Your task to perform on an android device: remove spam from my inbox in the gmail app Image 0: 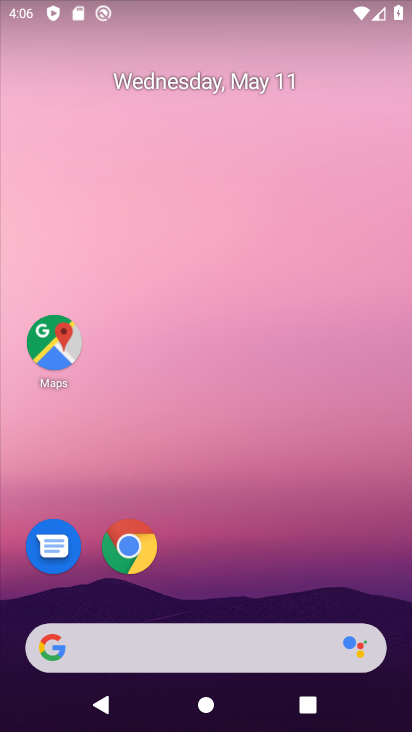
Step 0: press home button
Your task to perform on an android device: remove spam from my inbox in the gmail app Image 1: 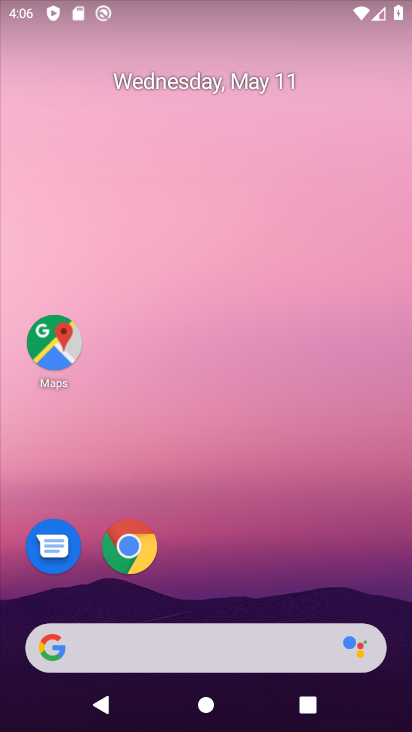
Step 1: drag from (208, 628) to (206, 207)
Your task to perform on an android device: remove spam from my inbox in the gmail app Image 2: 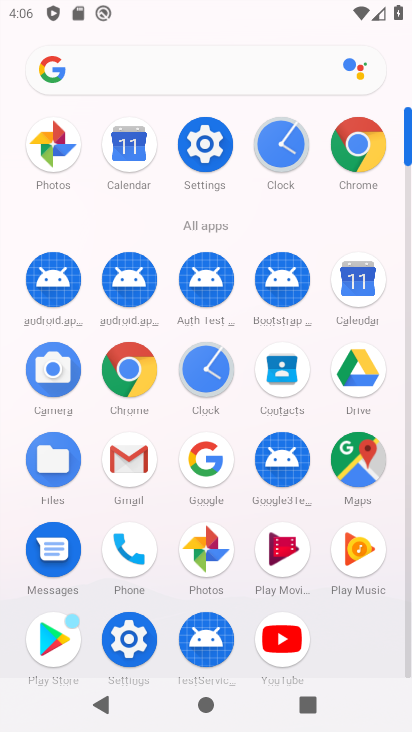
Step 2: click (141, 458)
Your task to perform on an android device: remove spam from my inbox in the gmail app Image 3: 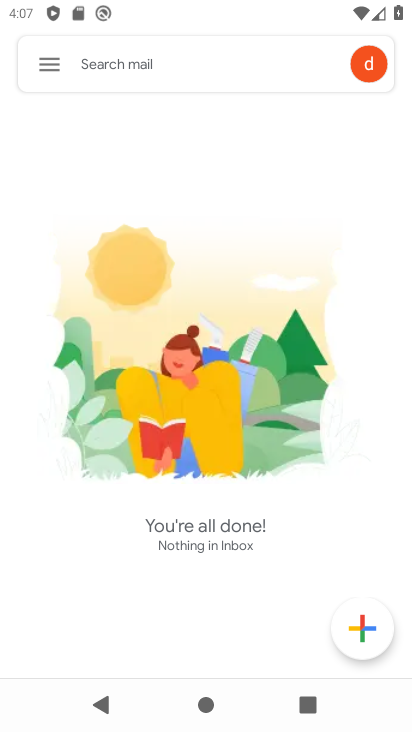
Step 3: click (44, 69)
Your task to perform on an android device: remove spam from my inbox in the gmail app Image 4: 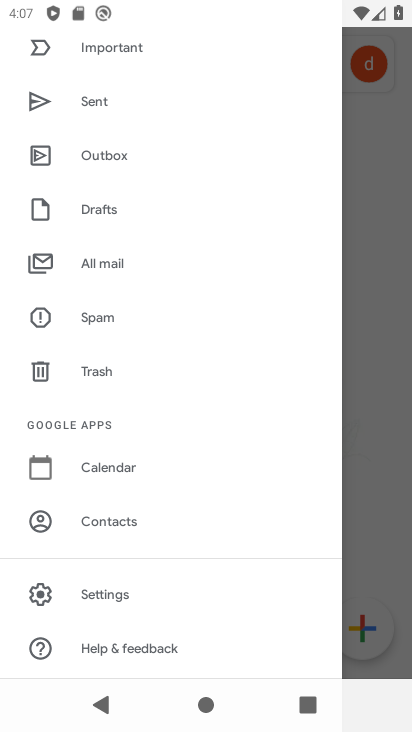
Step 4: click (106, 315)
Your task to perform on an android device: remove spam from my inbox in the gmail app Image 5: 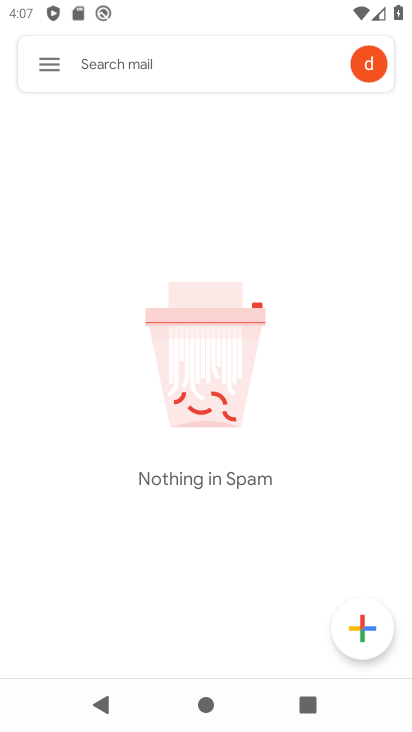
Step 5: click (38, 62)
Your task to perform on an android device: remove spam from my inbox in the gmail app Image 6: 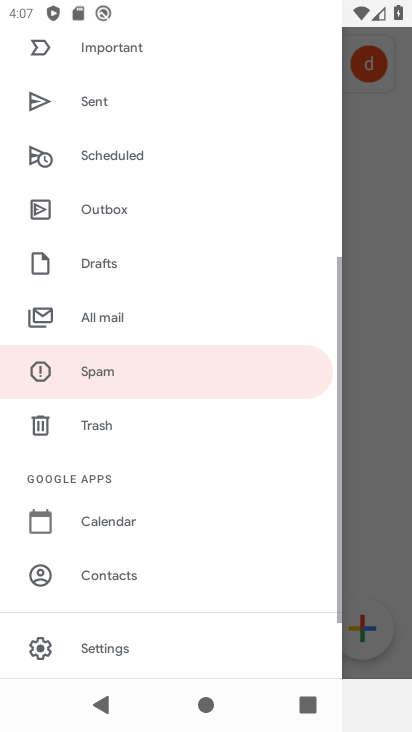
Step 6: drag from (164, 108) to (181, 564)
Your task to perform on an android device: remove spam from my inbox in the gmail app Image 7: 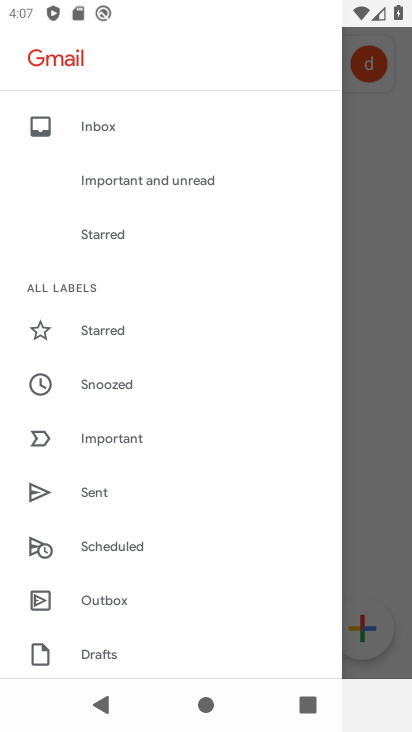
Step 7: click (100, 131)
Your task to perform on an android device: remove spam from my inbox in the gmail app Image 8: 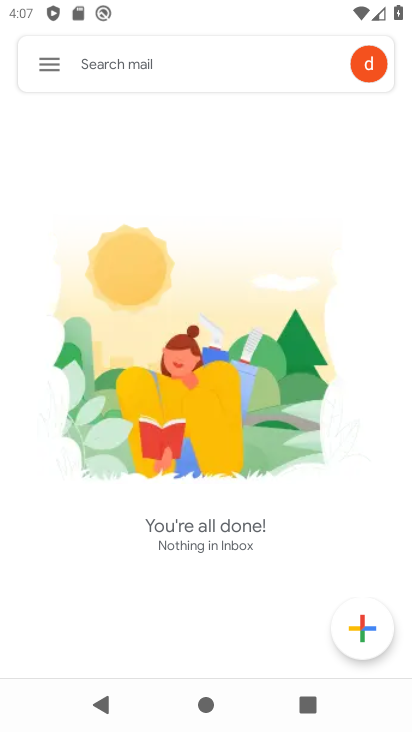
Step 8: task complete